Your task to perform on an android device: change notification settings in the gmail app Image 0: 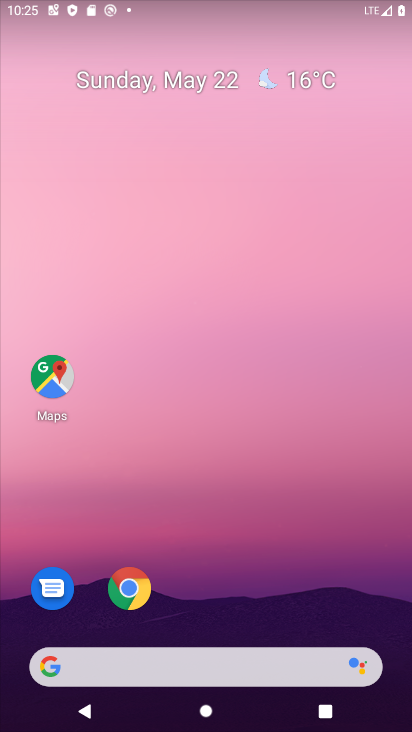
Step 0: drag from (195, 414) to (195, 198)
Your task to perform on an android device: change notification settings in the gmail app Image 1: 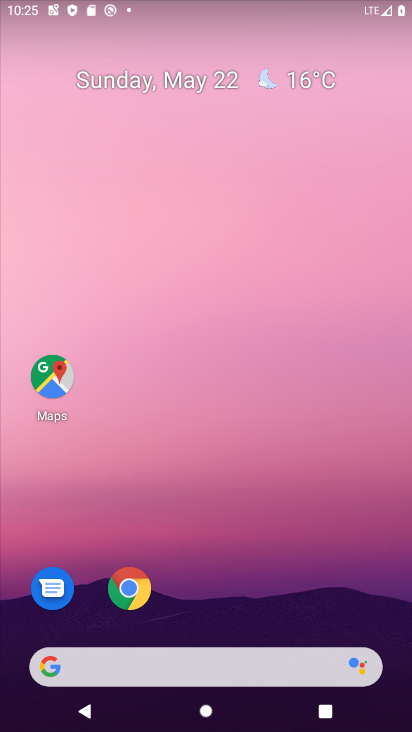
Step 1: drag from (208, 627) to (202, 216)
Your task to perform on an android device: change notification settings in the gmail app Image 2: 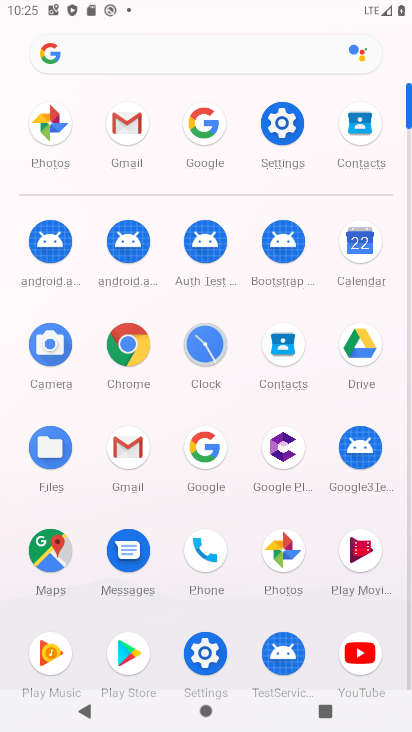
Step 2: click (140, 132)
Your task to perform on an android device: change notification settings in the gmail app Image 3: 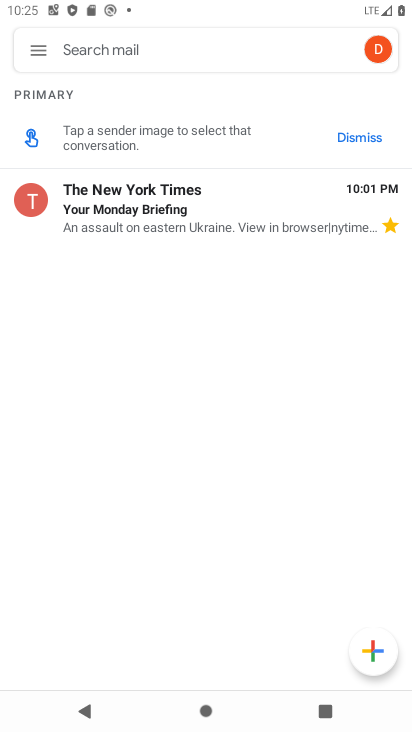
Step 3: click (40, 54)
Your task to perform on an android device: change notification settings in the gmail app Image 4: 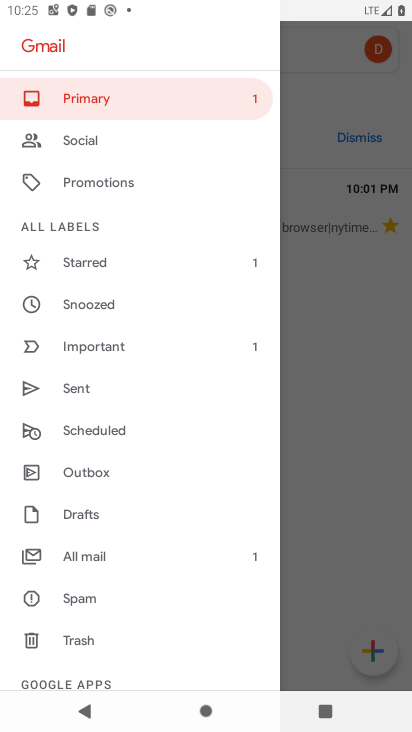
Step 4: drag from (133, 610) to (150, 435)
Your task to perform on an android device: change notification settings in the gmail app Image 5: 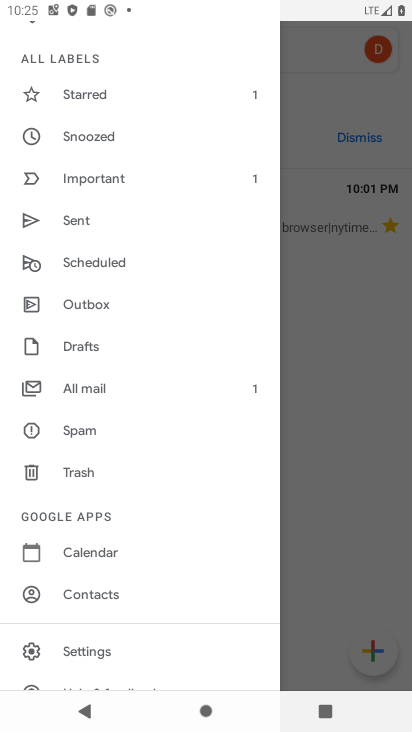
Step 5: click (100, 646)
Your task to perform on an android device: change notification settings in the gmail app Image 6: 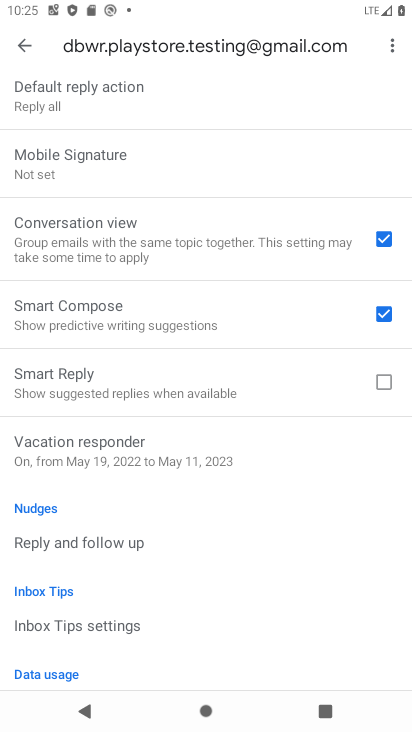
Step 6: drag from (142, 548) to (179, 235)
Your task to perform on an android device: change notification settings in the gmail app Image 7: 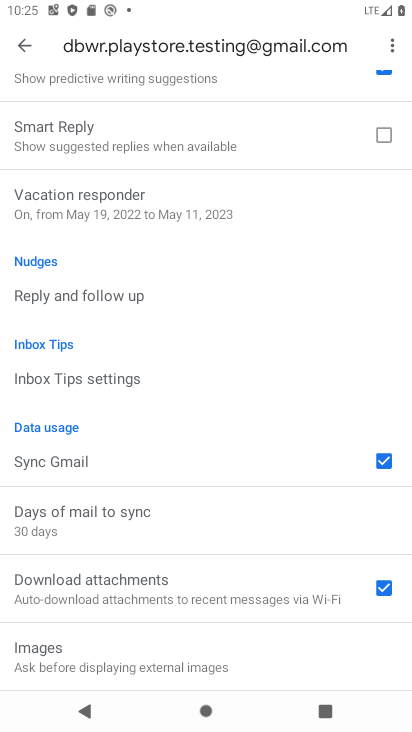
Step 7: drag from (128, 662) to (194, 379)
Your task to perform on an android device: change notification settings in the gmail app Image 8: 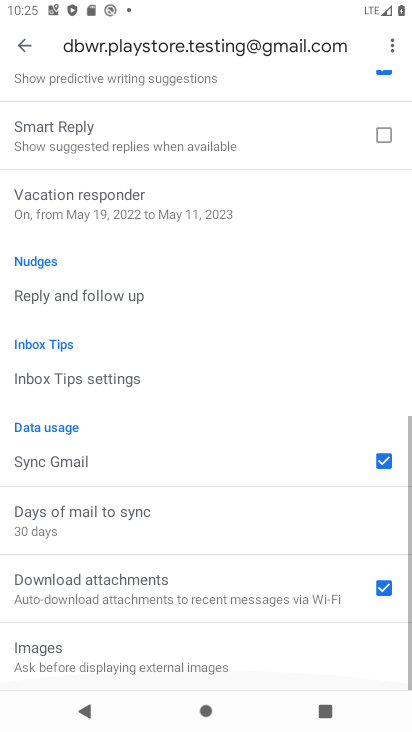
Step 8: drag from (212, 295) to (212, 587)
Your task to perform on an android device: change notification settings in the gmail app Image 9: 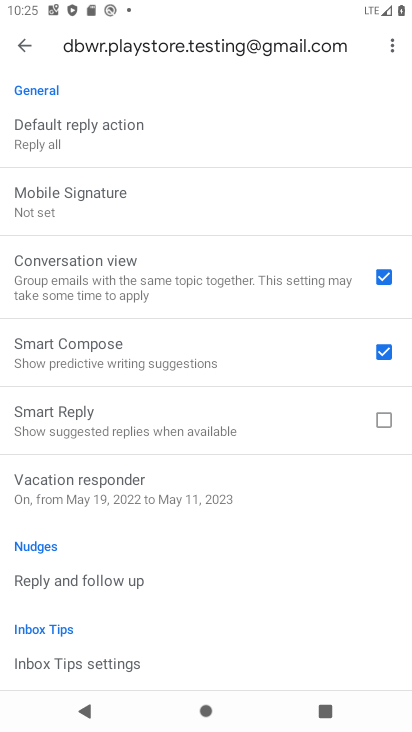
Step 9: drag from (173, 223) to (186, 630)
Your task to perform on an android device: change notification settings in the gmail app Image 10: 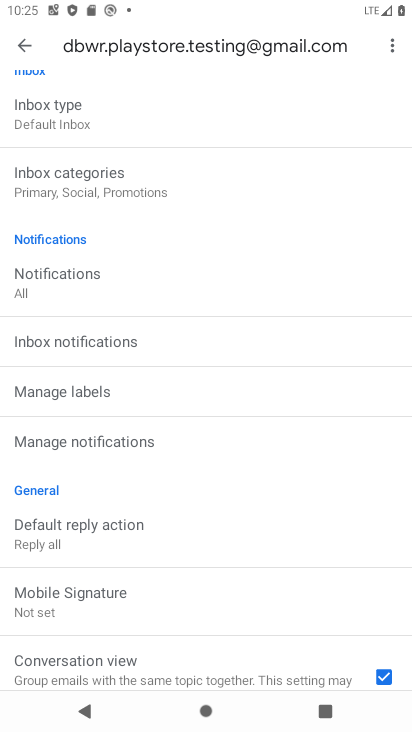
Step 10: click (130, 444)
Your task to perform on an android device: change notification settings in the gmail app Image 11: 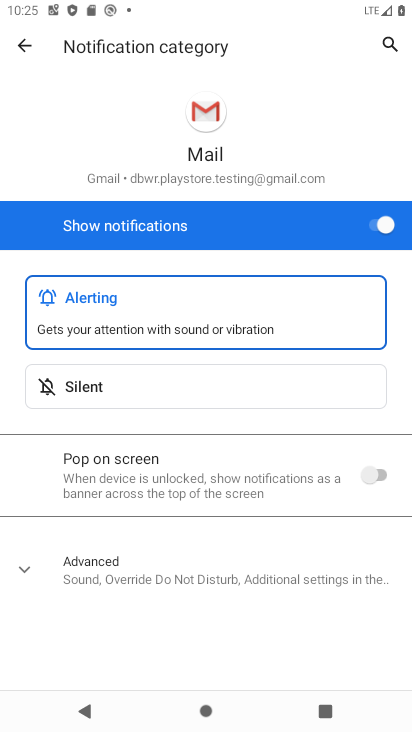
Step 11: click (375, 222)
Your task to perform on an android device: change notification settings in the gmail app Image 12: 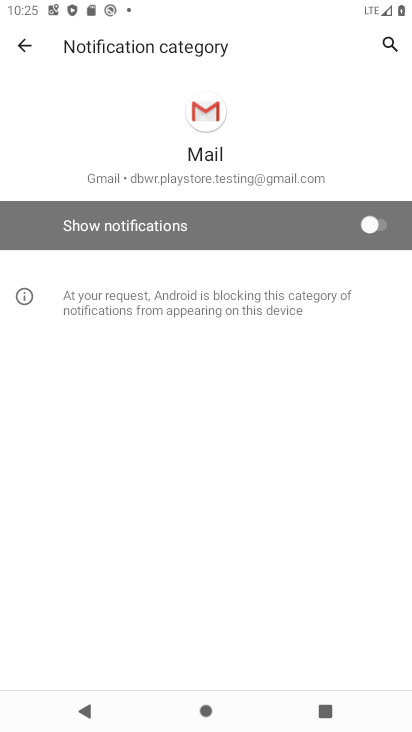
Step 12: task complete